Your task to perform on an android device: manage bookmarks in the chrome app Image 0: 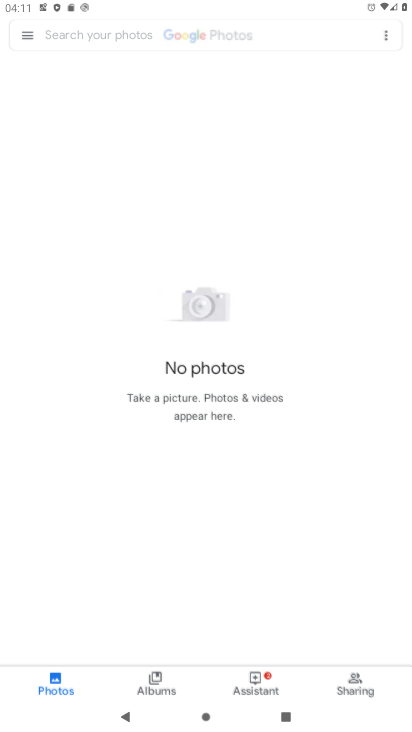
Step 0: drag from (376, 637) to (318, 122)
Your task to perform on an android device: manage bookmarks in the chrome app Image 1: 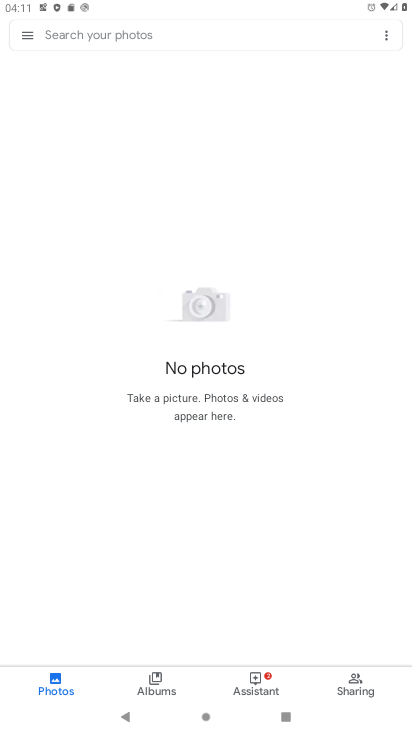
Step 1: press home button
Your task to perform on an android device: manage bookmarks in the chrome app Image 2: 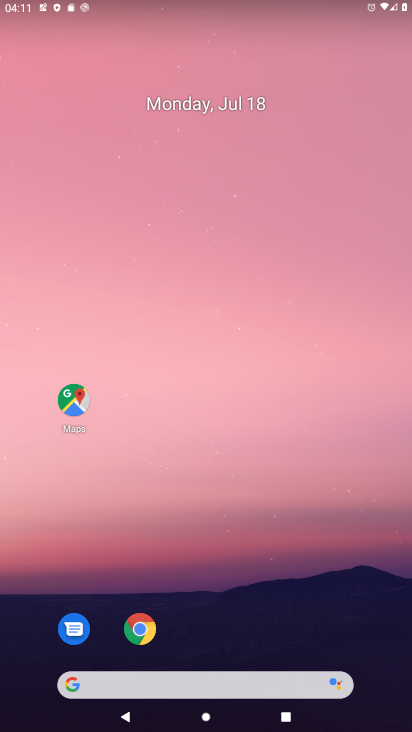
Step 2: click (124, 629)
Your task to perform on an android device: manage bookmarks in the chrome app Image 3: 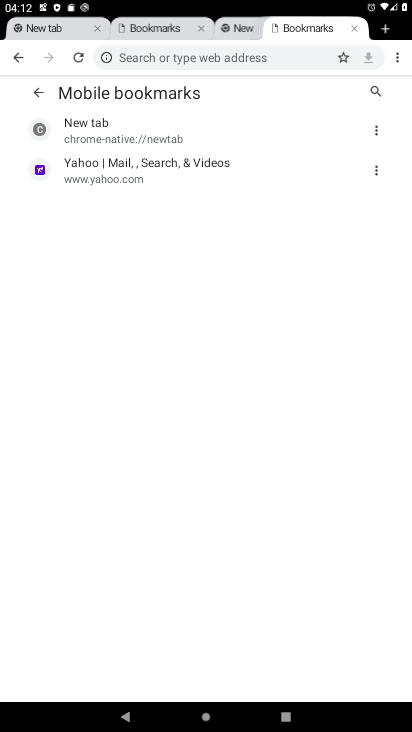
Step 3: click (371, 131)
Your task to perform on an android device: manage bookmarks in the chrome app Image 4: 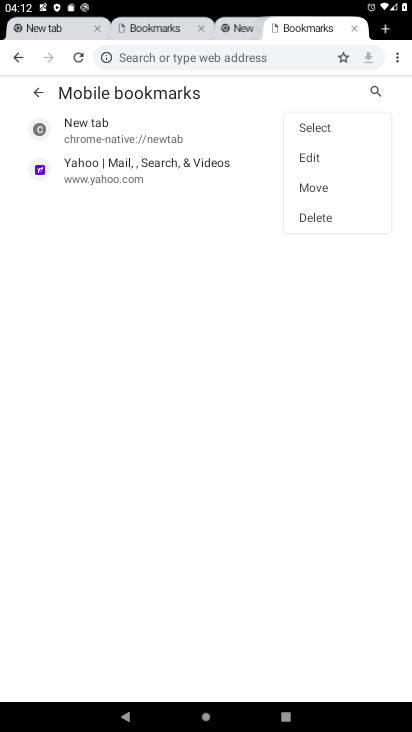
Step 4: click (311, 219)
Your task to perform on an android device: manage bookmarks in the chrome app Image 5: 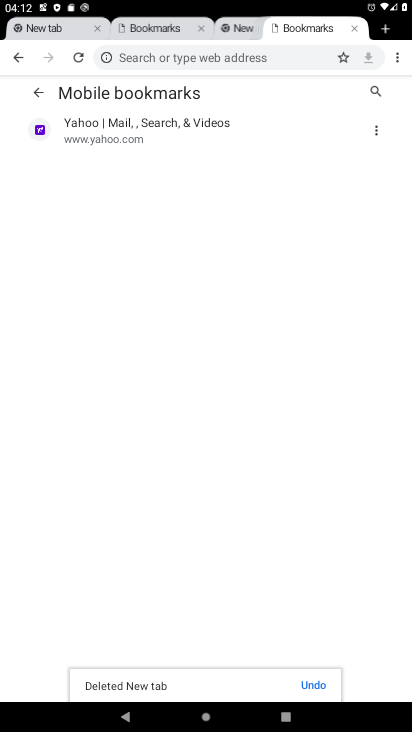
Step 5: task complete